Your task to perform on an android device: read, delete, or share a saved page in the chrome app Image 0: 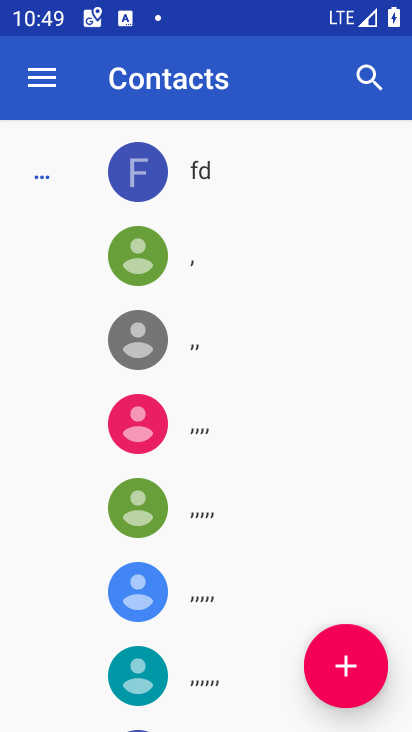
Step 0: press home button
Your task to perform on an android device: read, delete, or share a saved page in the chrome app Image 1: 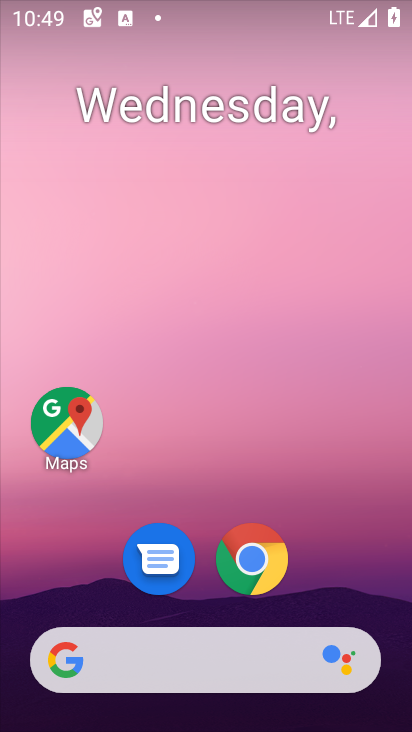
Step 1: drag from (250, 639) to (195, 0)
Your task to perform on an android device: read, delete, or share a saved page in the chrome app Image 2: 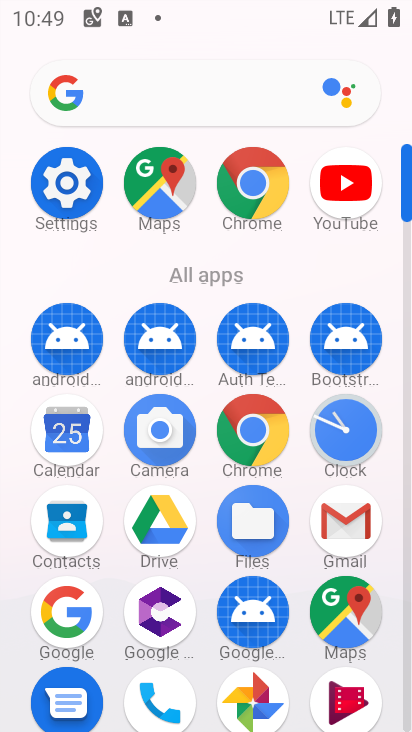
Step 2: click (257, 437)
Your task to perform on an android device: read, delete, or share a saved page in the chrome app Image 3: 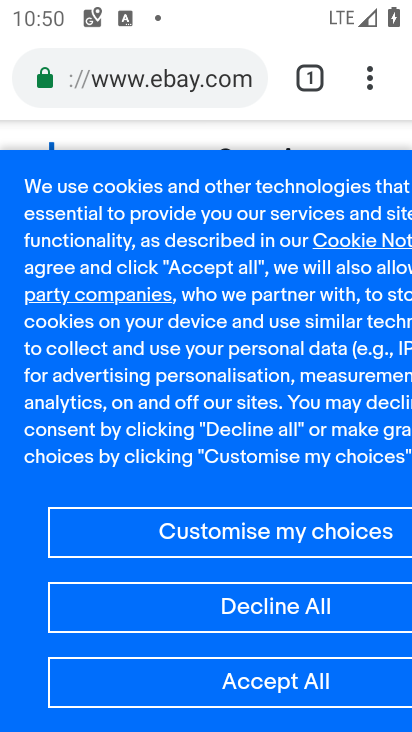
Step 3: click (373, 85)
Your task to perform on an android device: read, delete, or share a saved page in the chrome app Image 4: 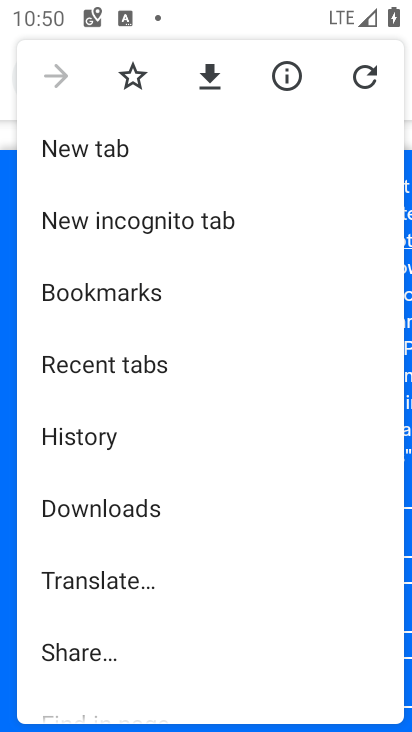
Step 4: click (162, 520)
Your task to perform on an android device: read, delete, or share a saved page in the chrome app Image 5: 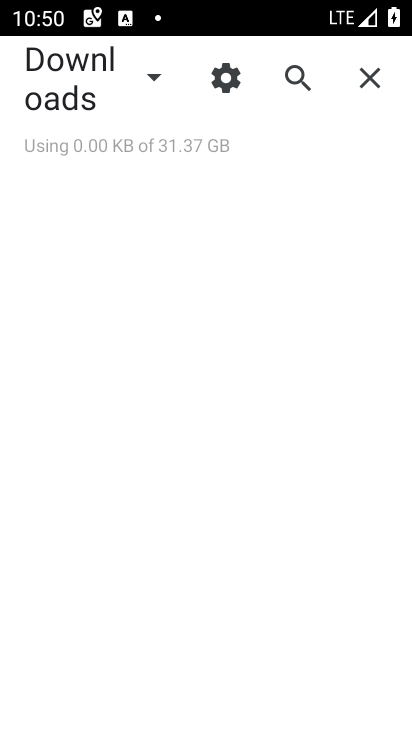
Step 5: click (136, 72)
Your task to perform on an android device: read, delete, or share a saved page in the chrome app Image 6: 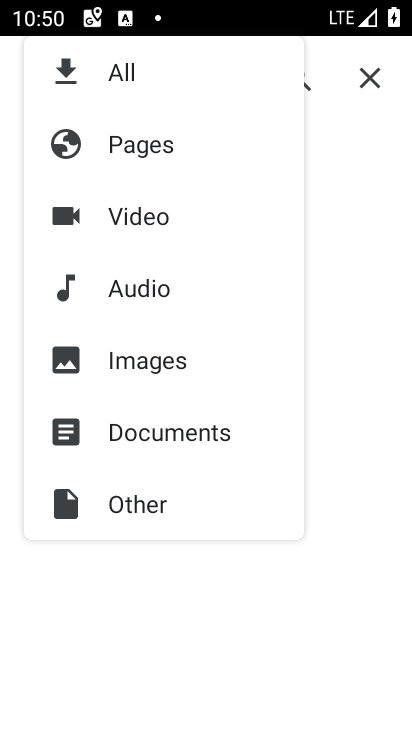
Step 6: click (120, 148)
Your task to perform on an android device: read, delete, or share a saved page in the chrome app Image 7: 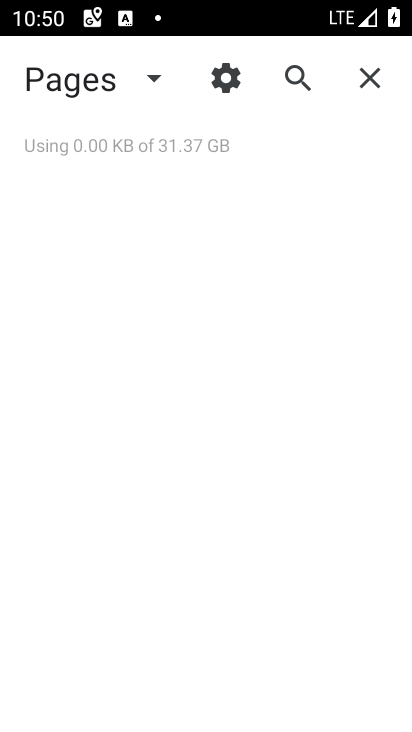
Step 7: task complete